Your task to perform on an android device: turn off javascript in the chrome app Image 0: 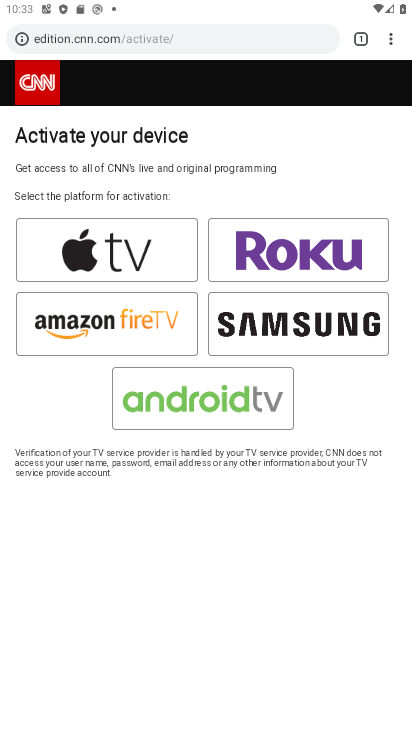
Step 0: press home button
Your task to perform on an android device: turn off javascript in the chrome app Image 1: 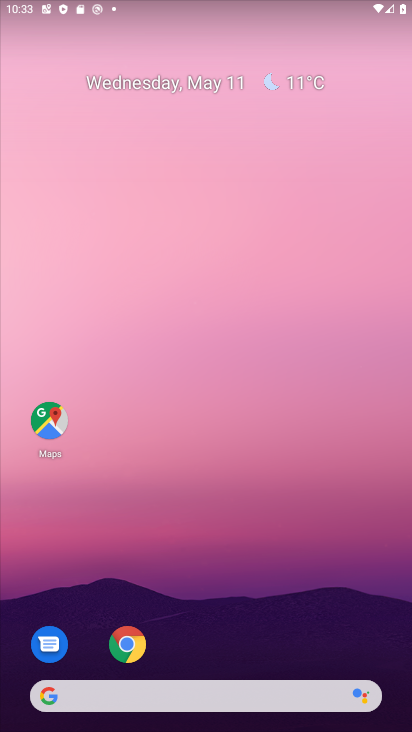
Step 1: click (124, 643)
Your task to perform on an android device: turn off javascript in the chrome app Image 2: 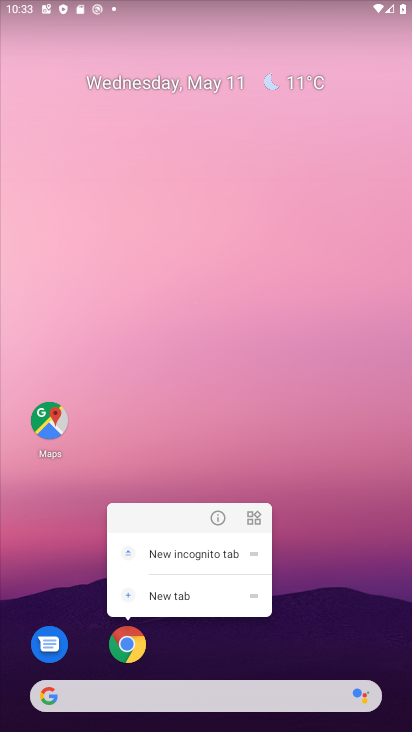
Step 2: click (123, 643)
Your task to perform on an android device: turn off javascript in the chrome app Image 3: 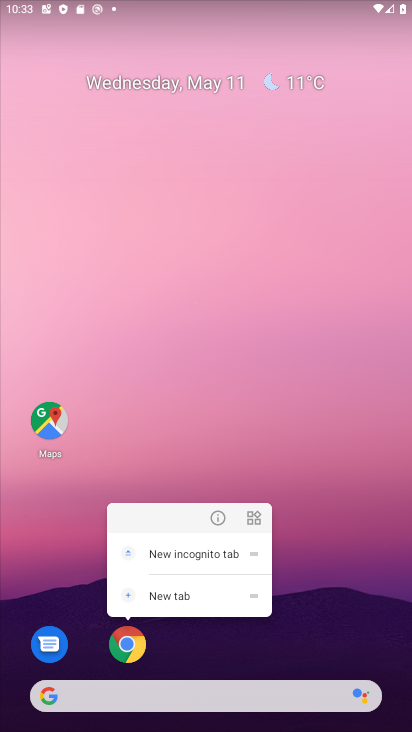
Step 3: click (127, 643)
Your task to perform on an android device: turn off javascript in the chrome app Image 4: 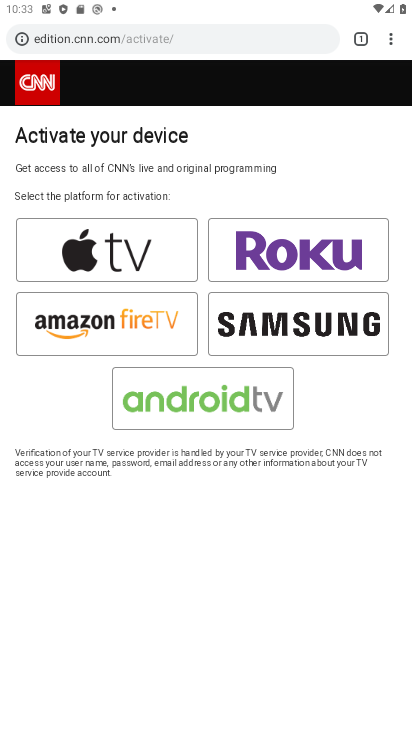
Step 4: click (365, 32)
Your task to perform on an android device: turn off javascript in the chrome app Image 5: 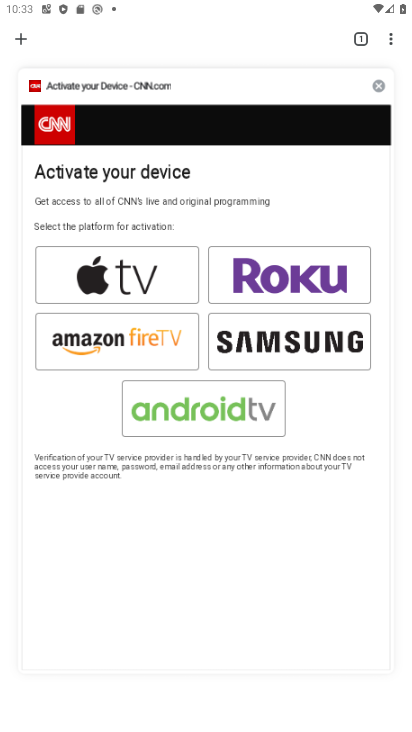
Step 5: click (381, 80)
Your task to perform on an android device: turn off javascript in the chrome app Image 6: 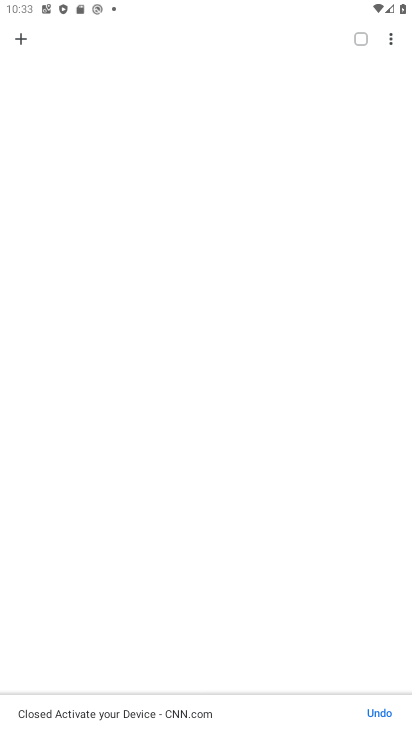
Step 6: click (12, 37)
Your task to perform on an android device: turn off javascript in the chrome app Image 7: 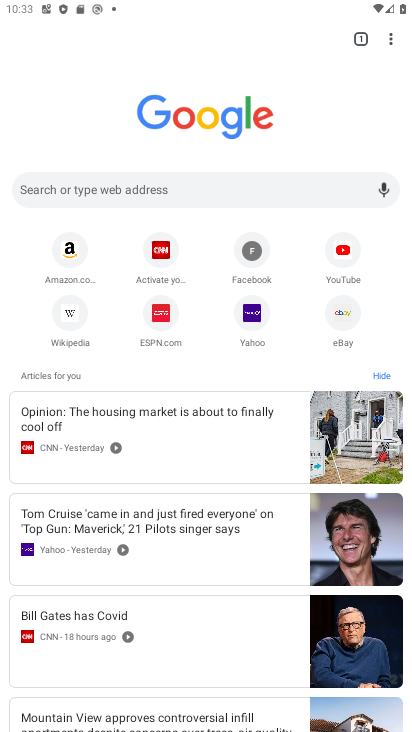
Step 7: click (387, 41)
Your task to perform on an android device: turn off javascript in the chrome app Image 8: 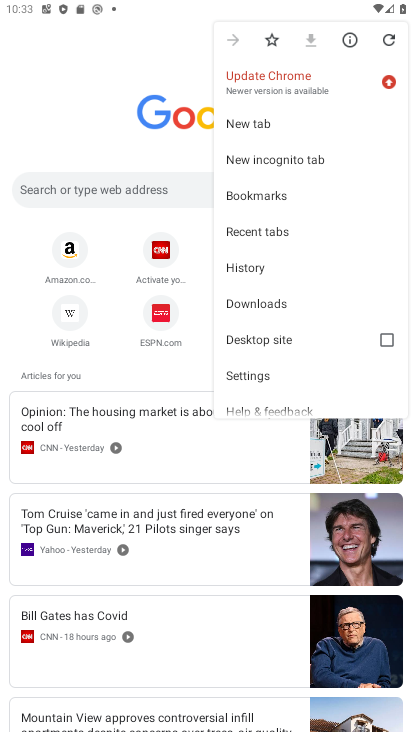
Step 8: click (273, 374)
Your task to perform on an android device: turn off javascript in the chrome app Image 9: 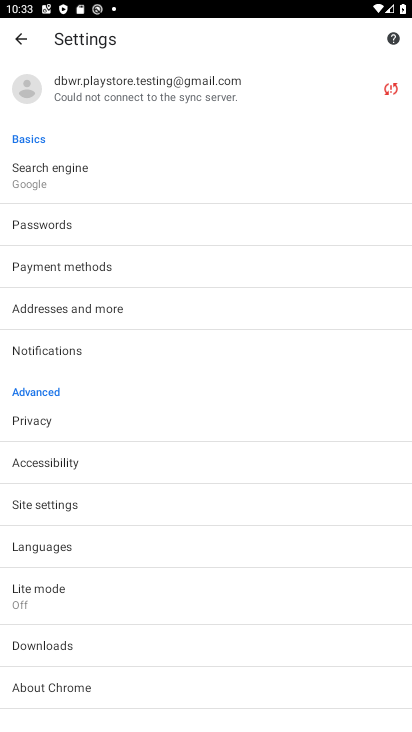
Step 9: click (82, 504)
Your task to perform on an android device: turn off javascript in the chrome app Image 10: 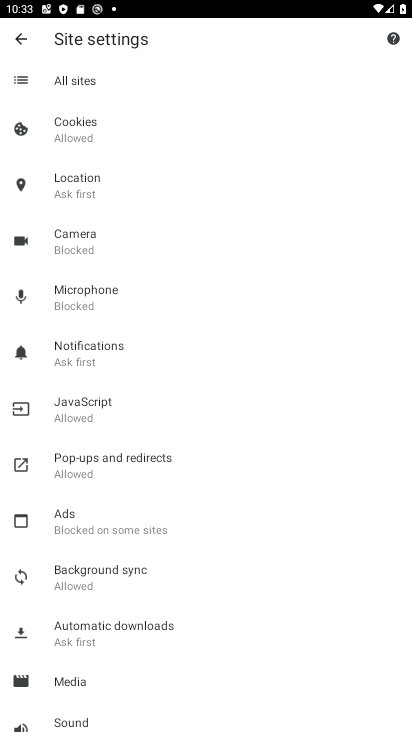
Step 10: click (125, 401)
Your task to perform on an android device: turn off javascript in the chrome app Image 11: 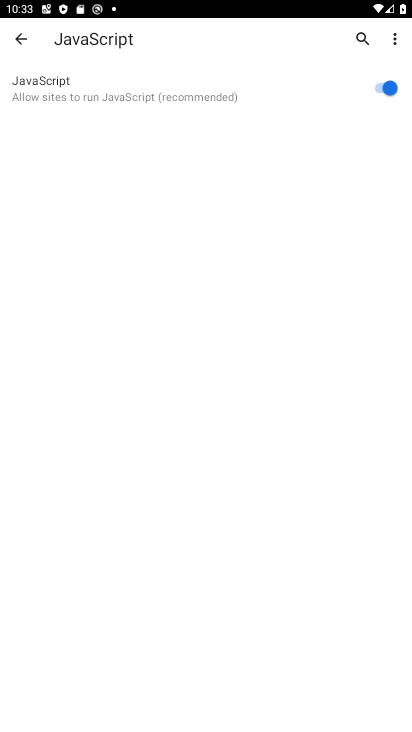
Step 11: click (380, 84)
Your task to perform on an android device: turn off javascript in the chrome app Image 12: 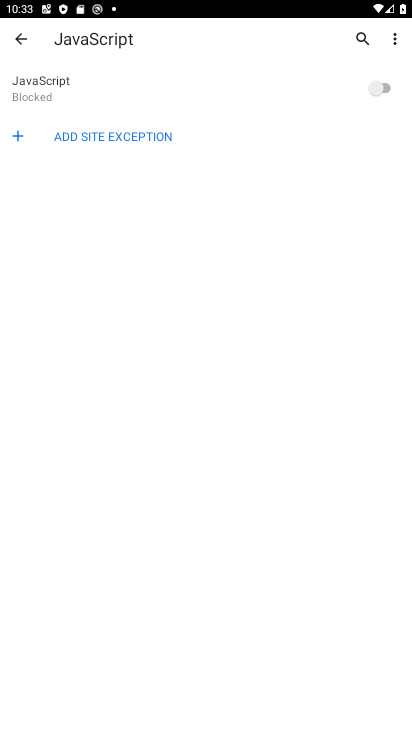
Step 12: task complete